Your task to perform on an android device: change keyboard looks Image 0: 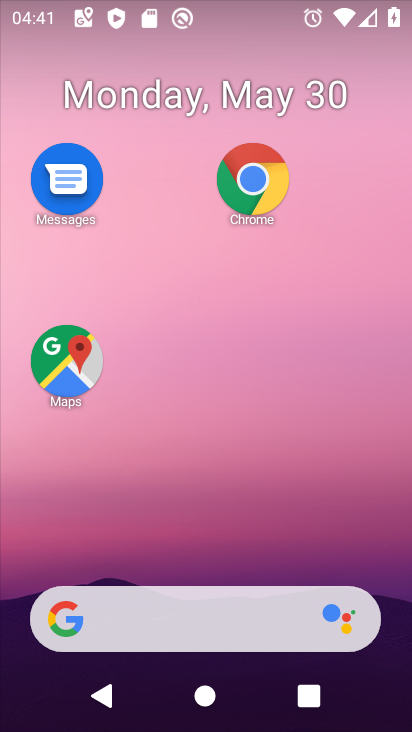
Step 0: drag from (147, 560) to (156, 222)
Your task to perform on an android device: change keyboard looks Image 1: 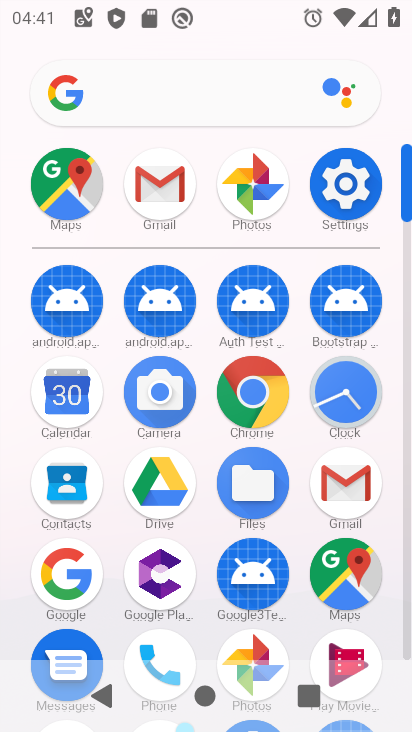
Step 1: click (348, 169)
Your task to perform on an android device: change keyboard looks Image 2: 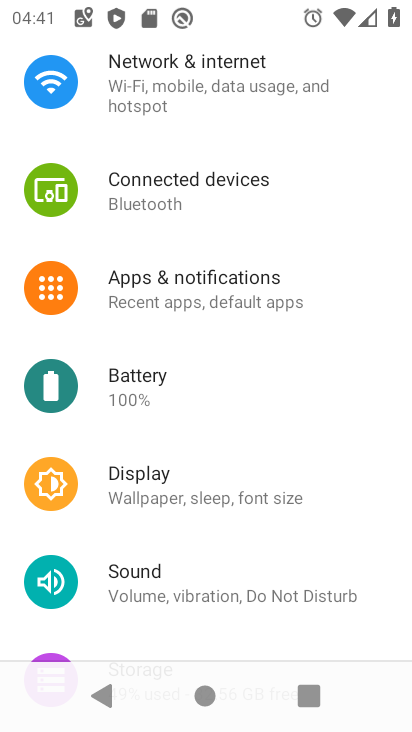
Step 2: drag from (155, 570) to (144, 304)
Your task to perform on an android device: change keyboard looks Image 3: 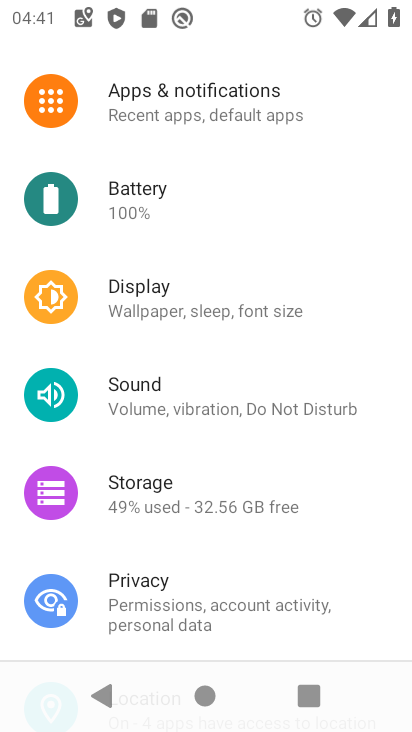
Step 3: drag from (120, 531) to (123, 306)
Your task to perform on an android device: change keyboard looks Image 4: 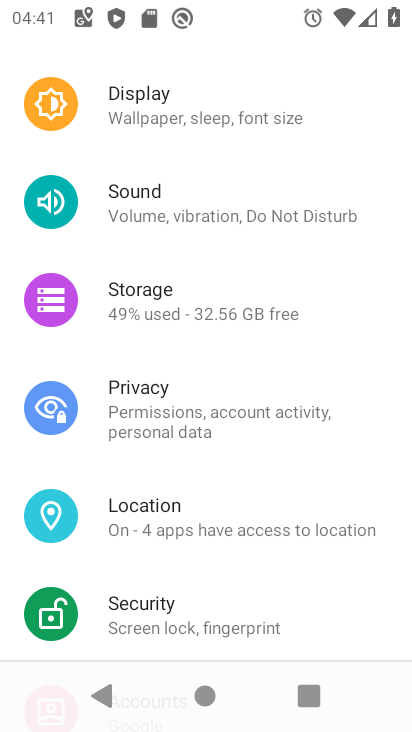
Step 4: drag from (166, 620) to (186, 313)
Your task to perform on an android device: change keyboard looks Image 5: 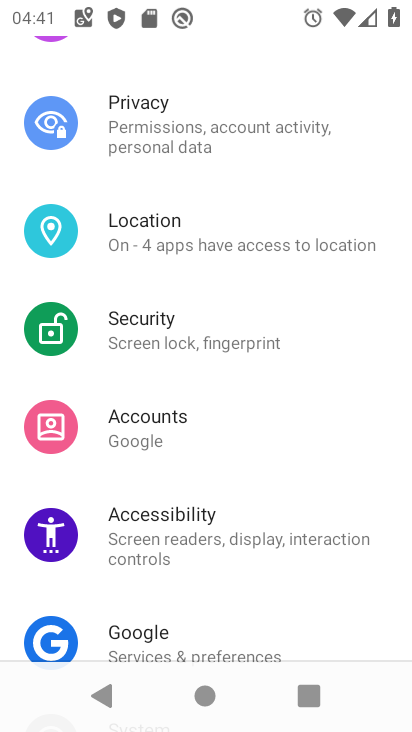
Step 5: drag from (98, 514) to (98, 317)
Your task to perform on an android device: change keyboard looks Image 6: 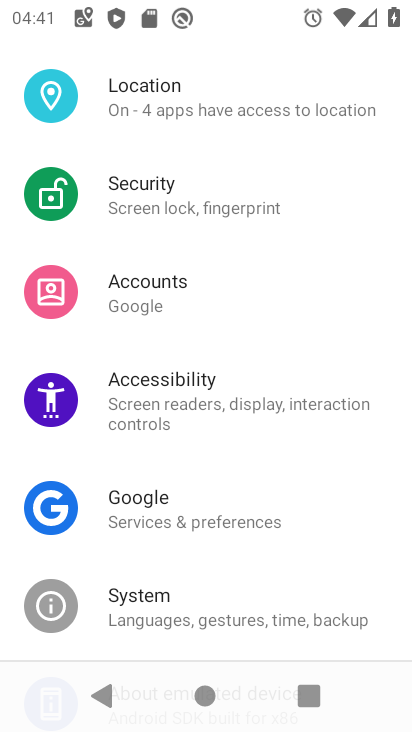
Step 6: drag from (176, 556) to (202, 232)
Your task to perform on an android device: change keyboard looks Image 7: 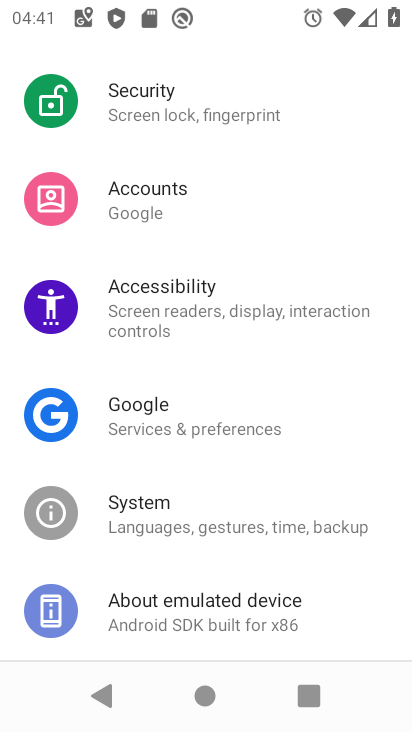
Step 7: drag from (188, 280) to (190, 132)
Your task to perform on an android device: change keyboard looks Image 8: 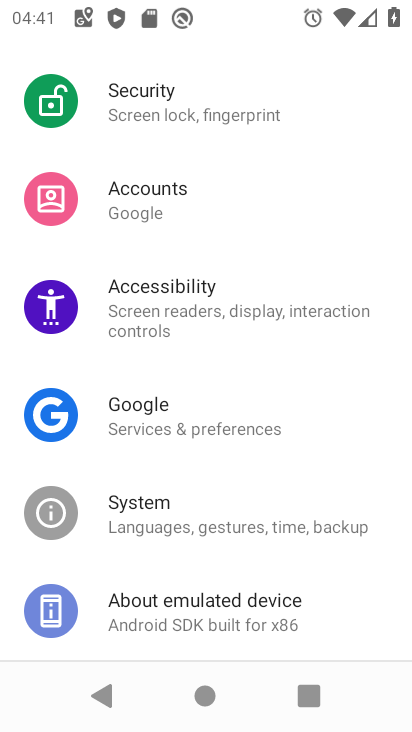
Step 8: click (158, 537)
Your task to perform on an android device: change keyboard looks Image 9: 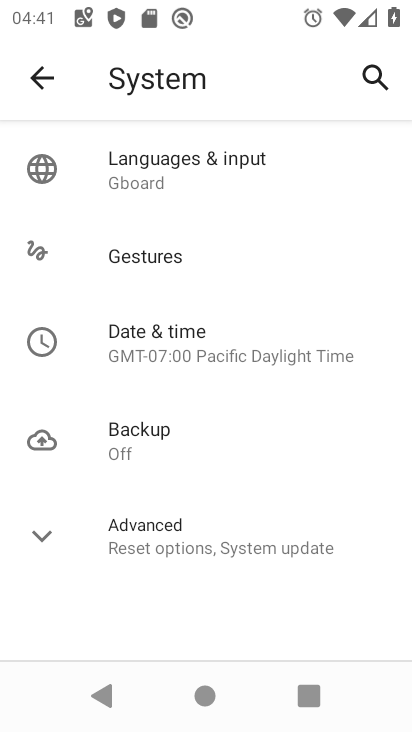
Step 9: click (122, 176)
Your task to perform on an android device: change keyboard looks Image 10: 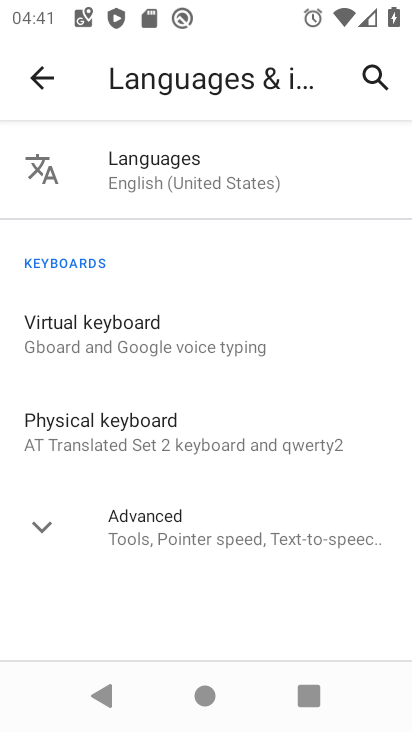
Step 10: click (92, 351)
Your task to perform on an android device: change keyboard looks Image 11: 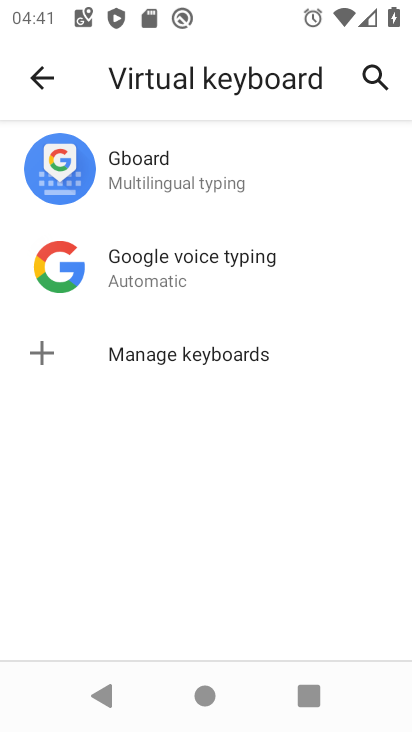
Step 11: click (109, 185)
Your task to perform on an android device: change keyboard looks Image 12: 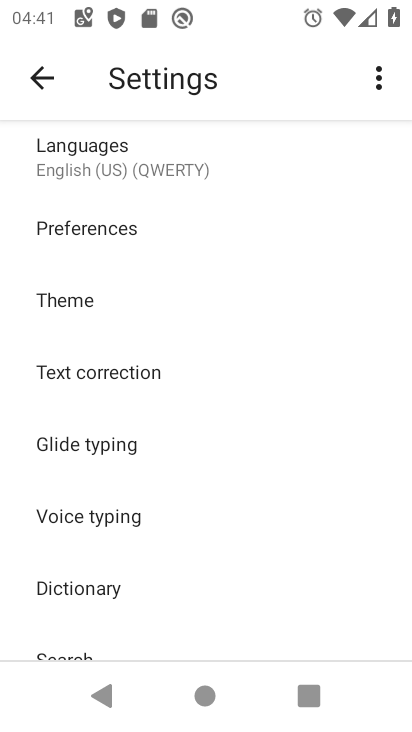
Step 12: click (72, 290)
Your task to perform on an android device: change keyboard looks Image 13: 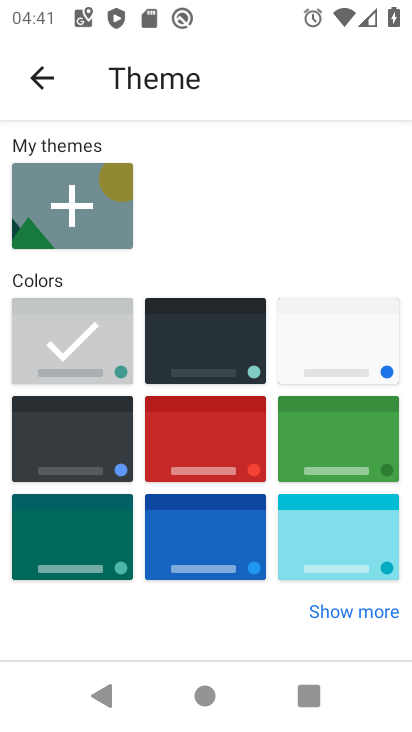
Step 13: click (184, 356)
Your task to perform on an android device: change keyboard looks Image 14: 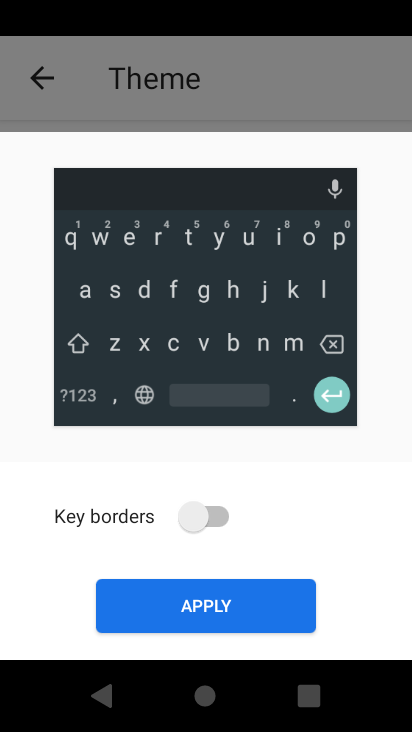
Step 14: click (225, 613)
Your task to perform on an android device: change keyboard looks Image 15: 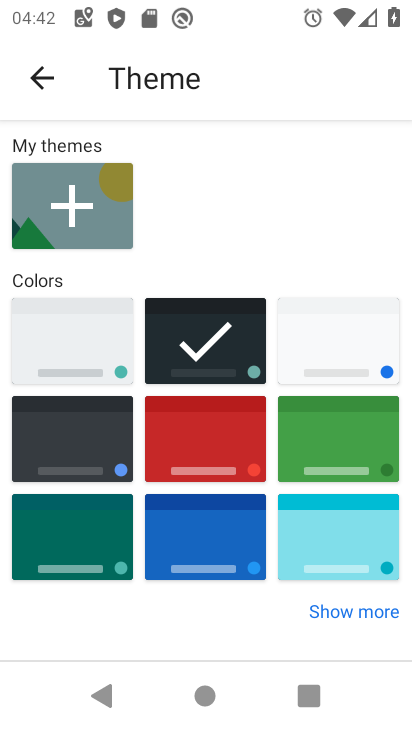
Step 15: task complete